Your task to perform on an android device: Open Android settings Image 0: 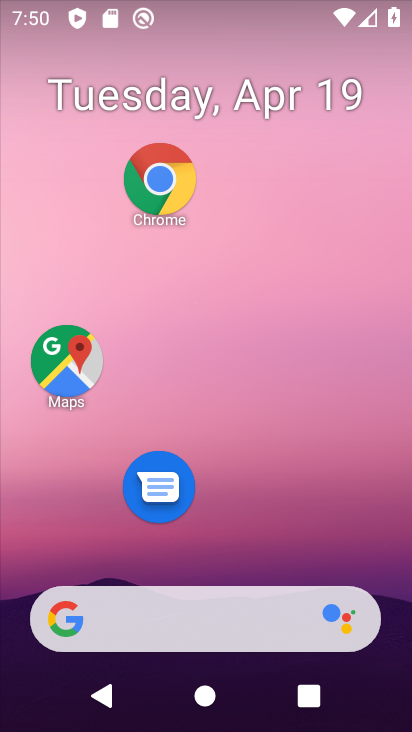
Step 0: drag from (273, 511) to (216, 92)
Your task to perform on an android device: Open Android settings Image 1: 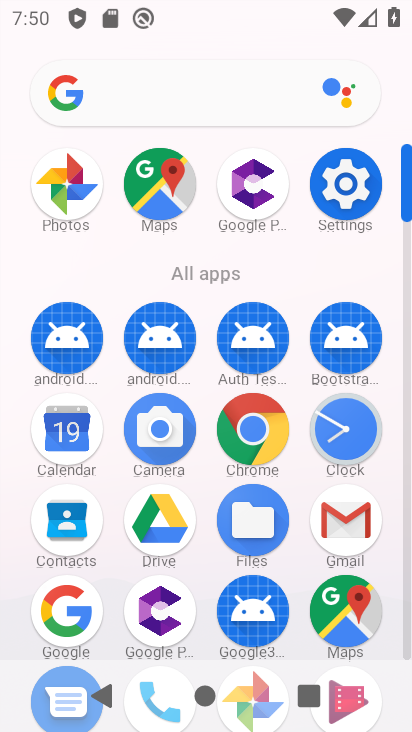
Step 1: click (162, 333)
Your task to perform on an android device: Open Android settings Image 2: 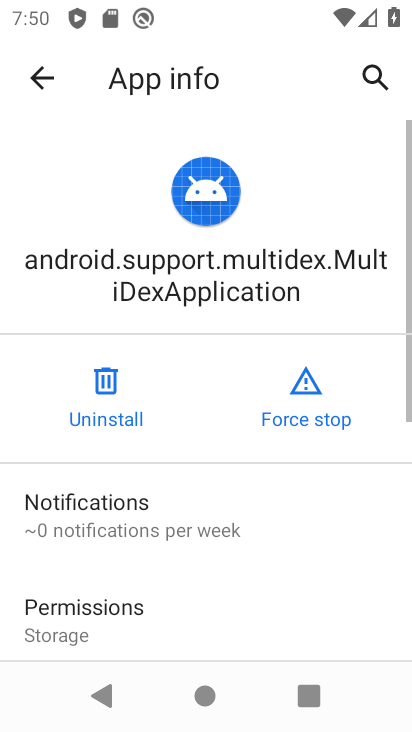
Step 2: drag from (203, 547) to (146, 236)
Your task to perform on an android device: Open Android settings Image 3: 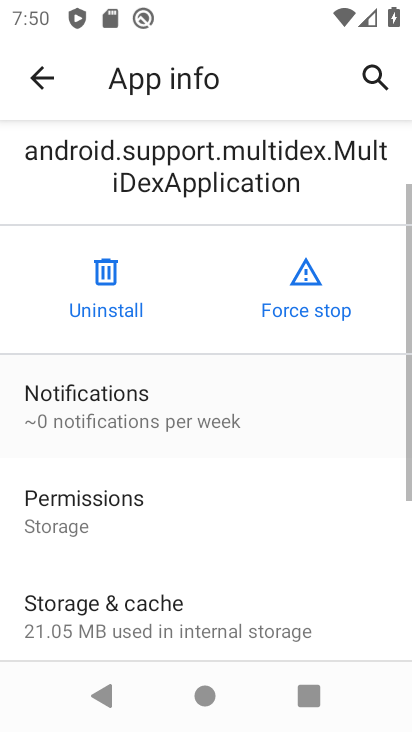
Step 3: drag from (183, 444) to (142, 268)
Your task to perform on an android device: Open Android settings Image 4: 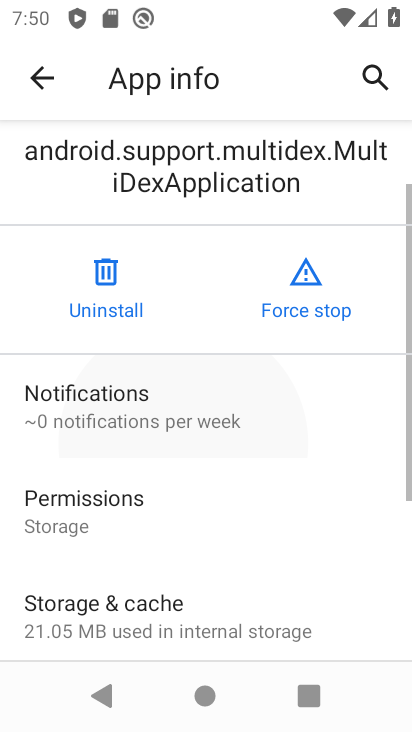
Step 4: drag from (233, 491) to (240, 395)
Your task to perform on an android device: Open Android settings Image 5: 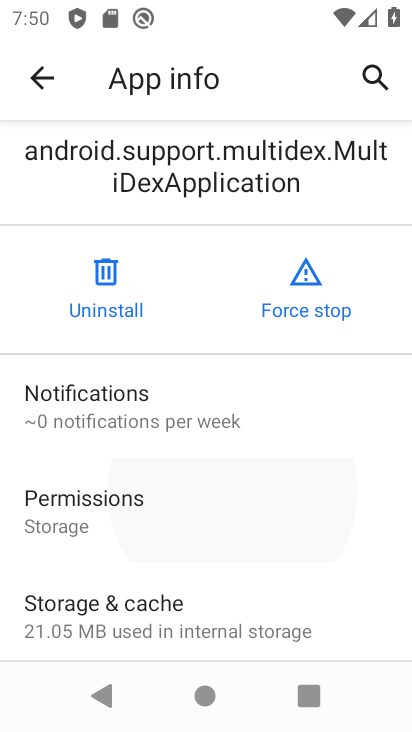
Step 5: drag from (212, 565) to (159, 364)
Your task to perform on an android device: Open Android settings Image 6: 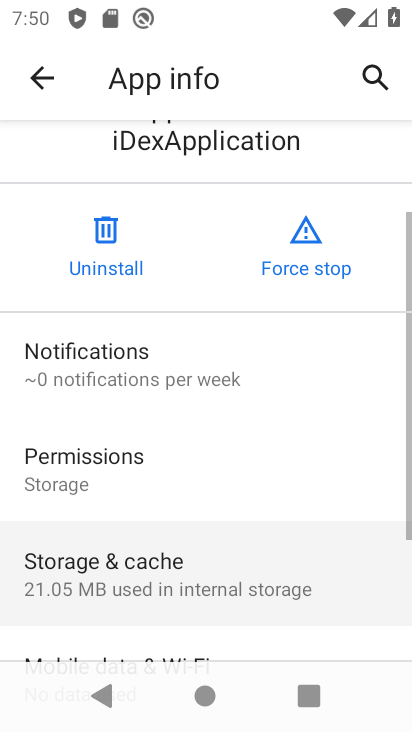
Step 6: click (161, 263)
Your task to perform on an android device: Open Android settings Image 7: 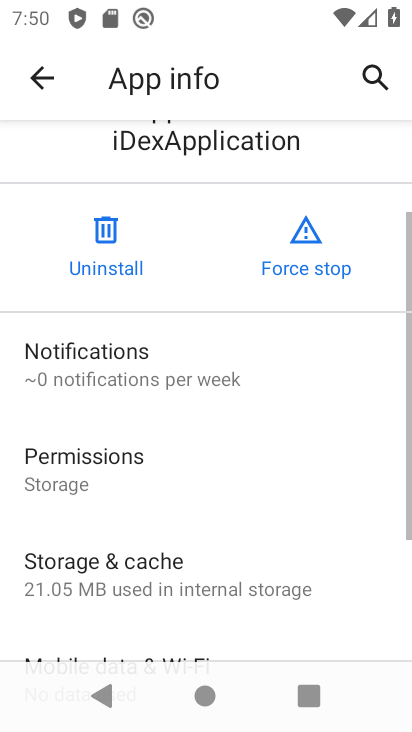
Step 7: drag from (192, 434) to (180, 261)
Your task to perform on an android device: Open Android settings Image 8: 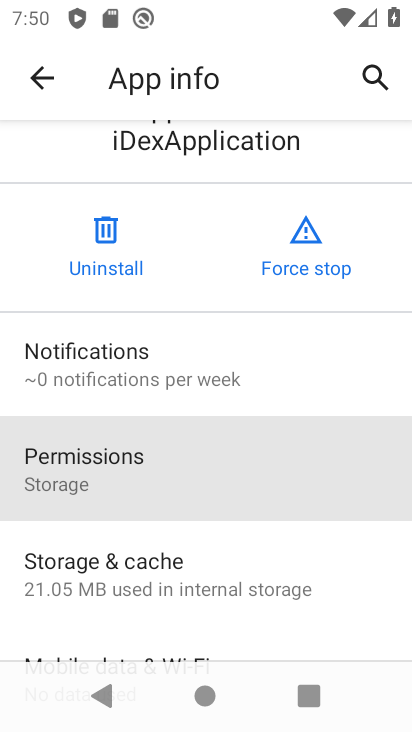
Step 8: drag from (201, 505) to (191, 175)
Your task to perform on an android device: Open Android settings Image 9: 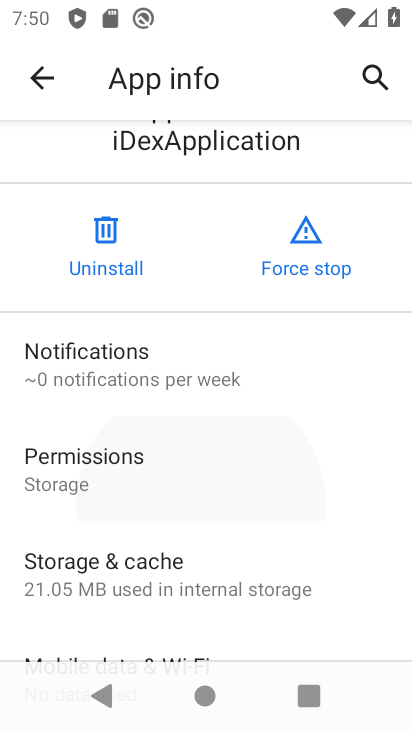
Step 9: click (212, 276)
Your task to perform on an android device: Open Android settings Image 10: 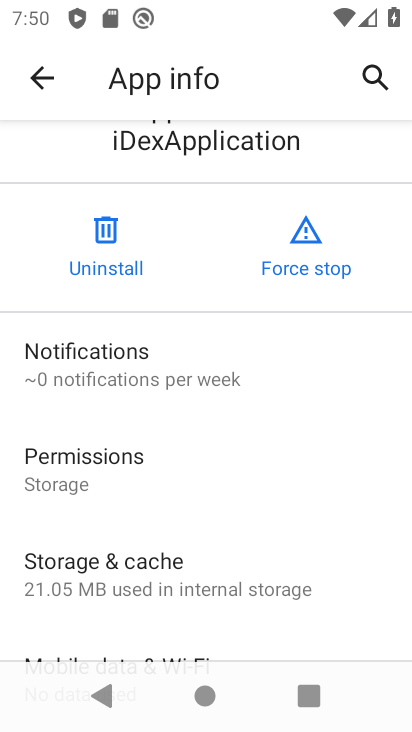
Step 10: task complete